Your task to perform on an android device: What's the weather going to be tomorrow? Image 0: 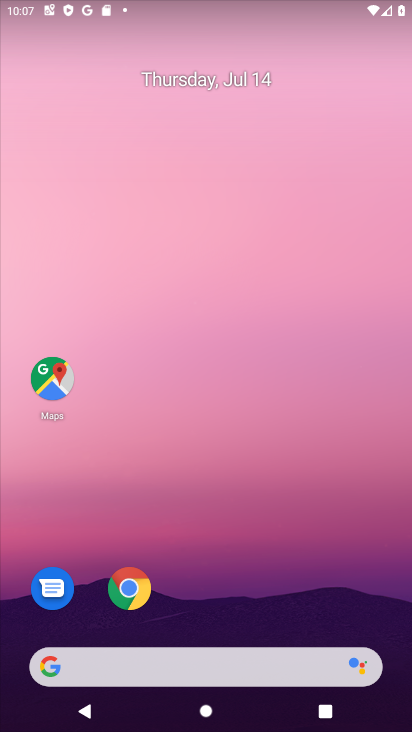
Step 0: press home button
Your task to perform on an android device: What's the weather going to be tomorrow? Image 1: 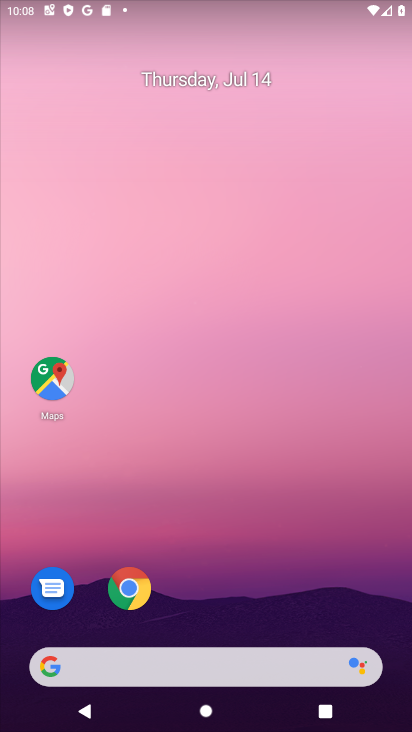
Step 1: click (141, 664)
Your task to perform on an android device: What's the weather going to be tomorrow? Image 2: 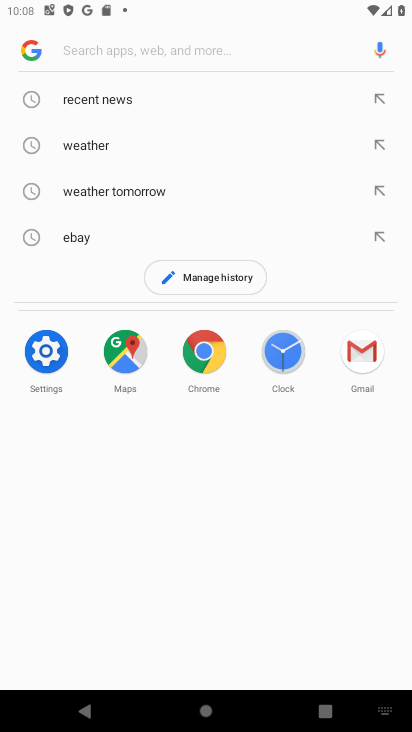
Step 2: click (90, 144)
Your task to perform on an android device: What's the weather going to be tomorrow? Image 3: 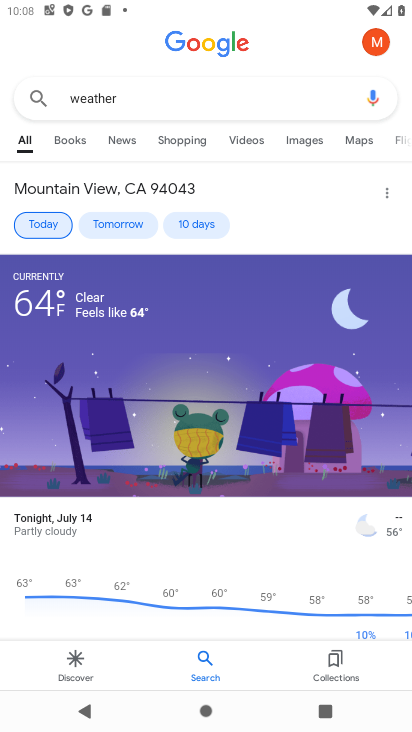
Step 3: click (110, 222)
Your task to perform on an android device: What's the weather going to be tomorrow? Image 4: 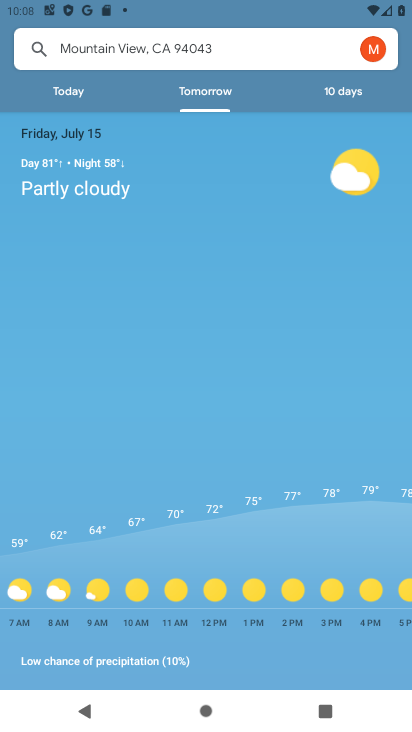
Step 4: task complete